Your task to perform on an android device: Open accessibility settings Image 0: 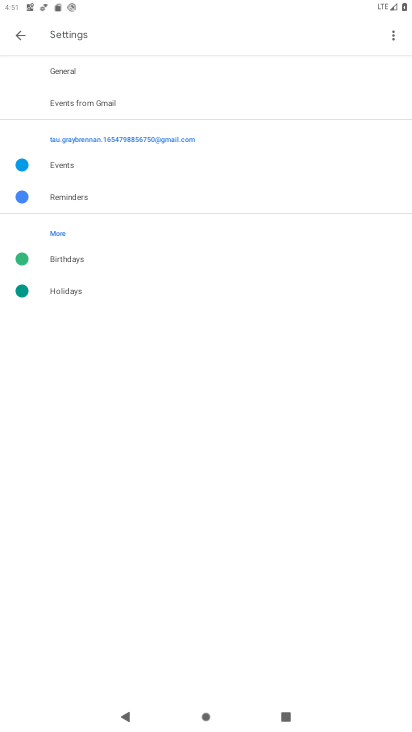
Step 0: press home button
Your task to perform on an android device: Open accessibility settings Image 1: 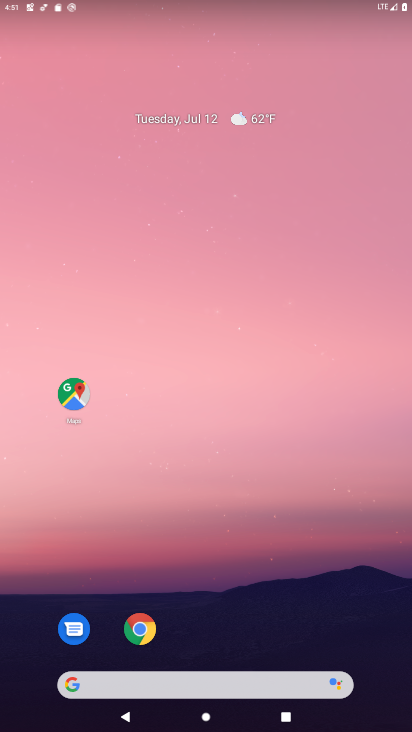
Step 1: drag from (269, 568) to (224, 23)
Your task to perform on an android device: Open accessibility settings Image 2: 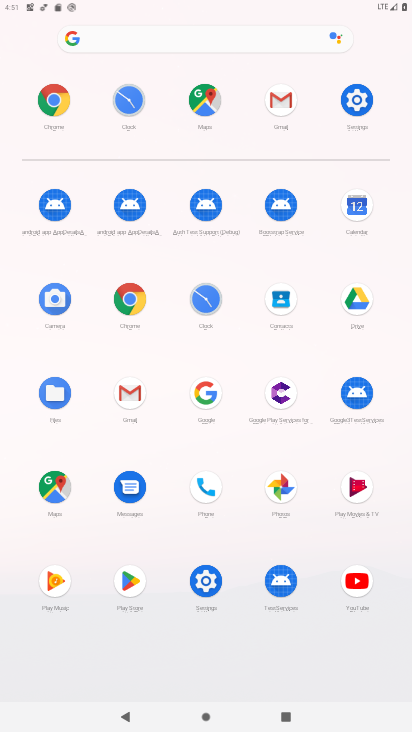
Step 2: click (367, 97)
Your task to perform on an android device: Open accessibility settings Image 3: 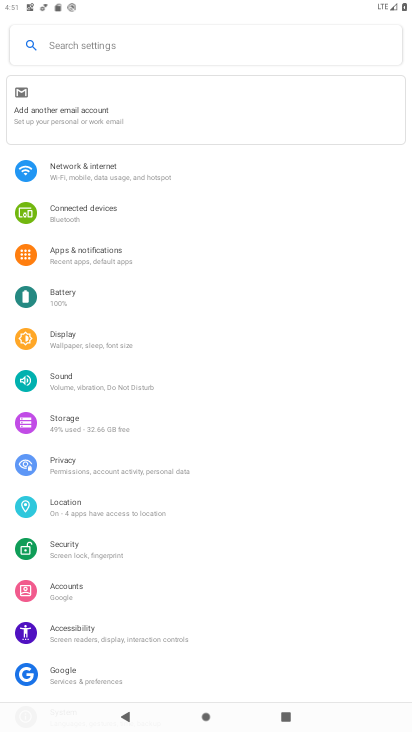
Step 3: drag from (140, 595) to (112, 276)
Your task to perform on an android device: Open accessibility settings Image 4: 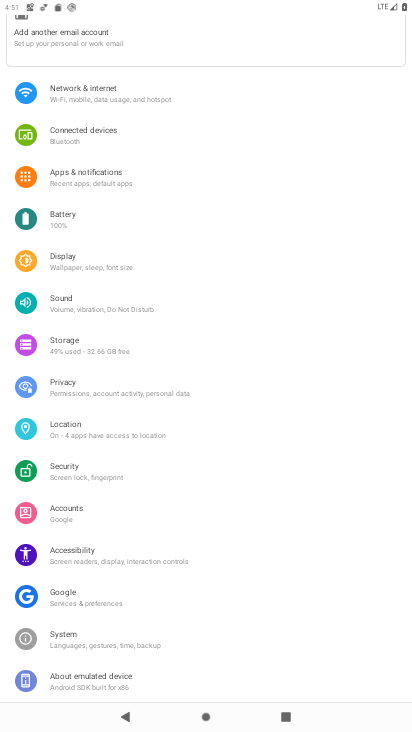
Step 4: click (94, 554)
Your task to perform on an android device: Open accessibility settings Image 5: 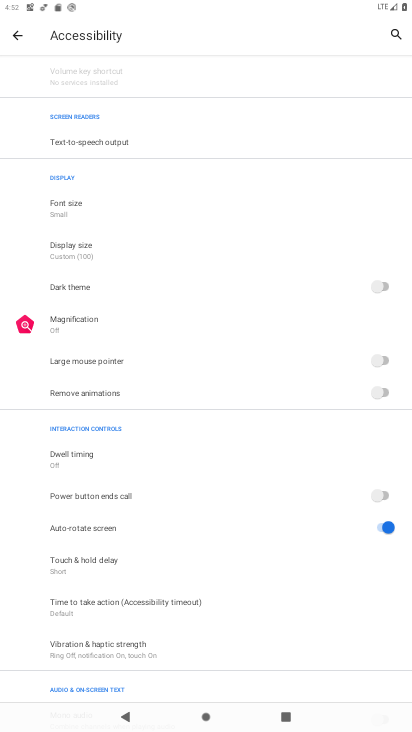
Step 5: task complete